Your task to perform on an android device: Open location settings Image 0: 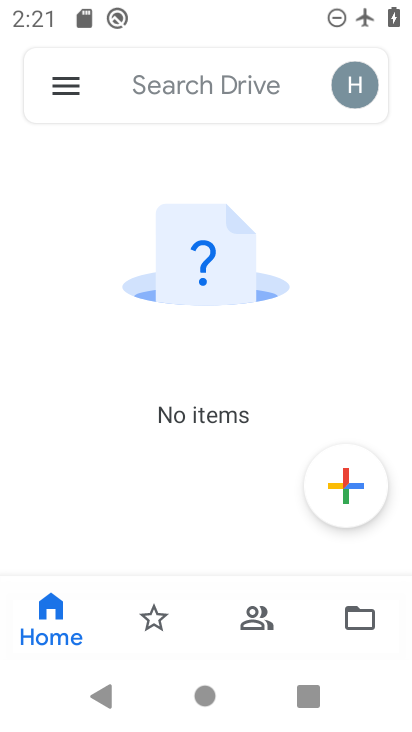
Step 0: press home button
Your task to perform on an android device: Open location settings Image 1: 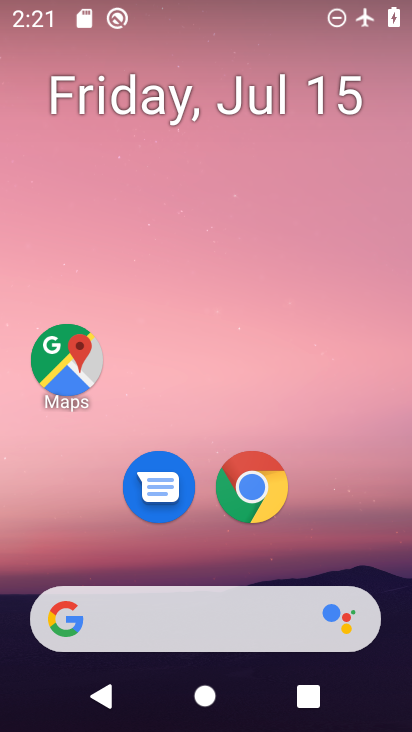
Step 1: drag from (193, 606) to (221, 121)
Your task to perform on an android device: Open location settings Image 2: 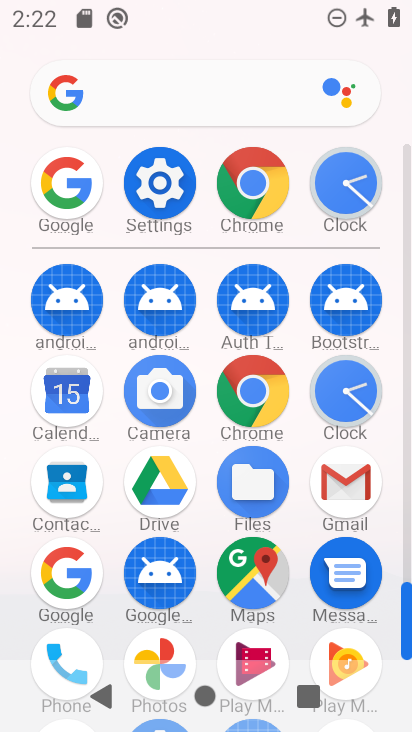
Step 2: click (162, 206)
Your task to perform on an android device: Open location settings Image 3: 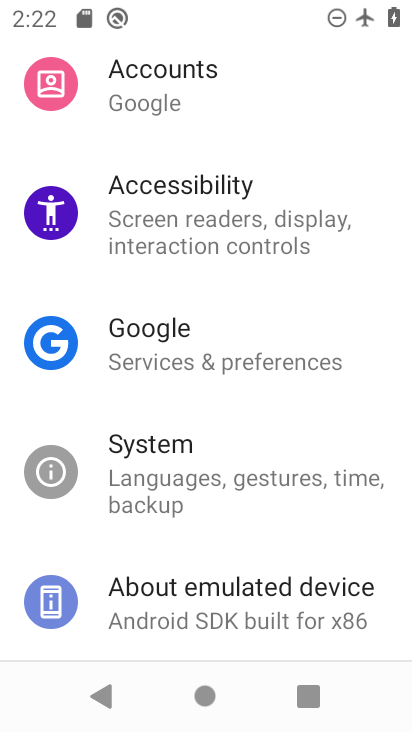
Step 3: drag from (216, 267) to (225, 465)
Your task to perform on an android device: Open location settings Image 4: 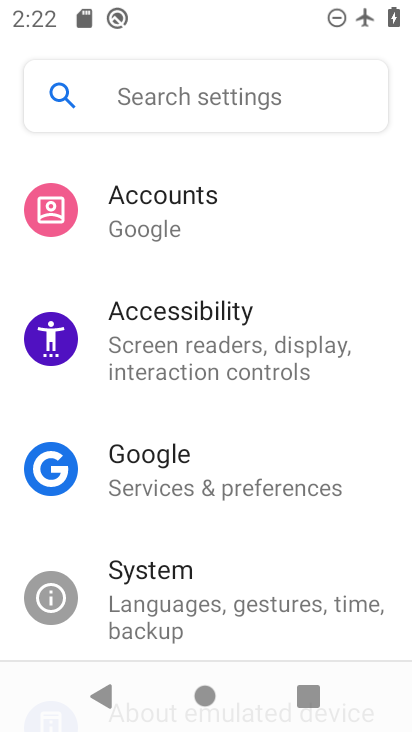
Step 4: drag from (255, 158) to (261, 571)
Your task to perform on an android device: Open location settings Image 5: 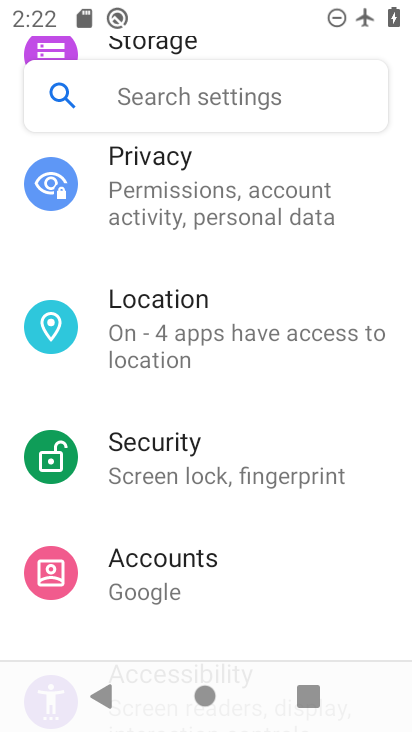
Step 5: click (191, 338)
Your task to perform on an android device: Open location settings Image 6: 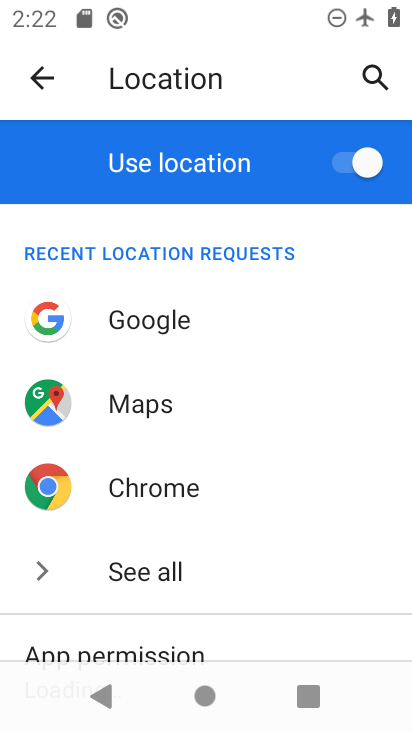
Step 6: task complete